Your task to perform on an android device: turn vacation reply on in the gmail app Image 0: 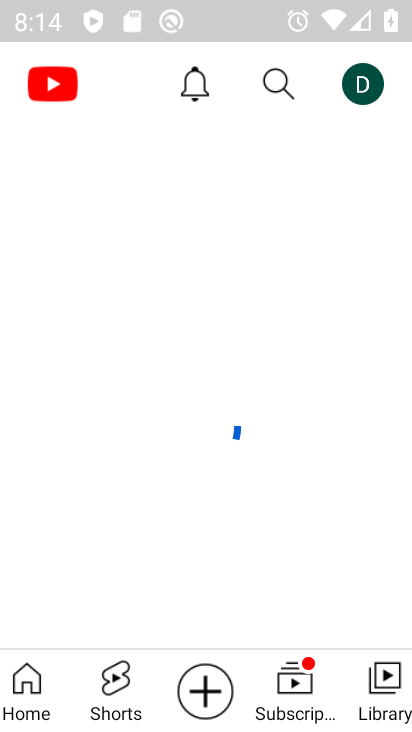
Step 0: click (384, 257)
Your task to perform on an android device: turn vacation reply on in the gmail app Image 1: 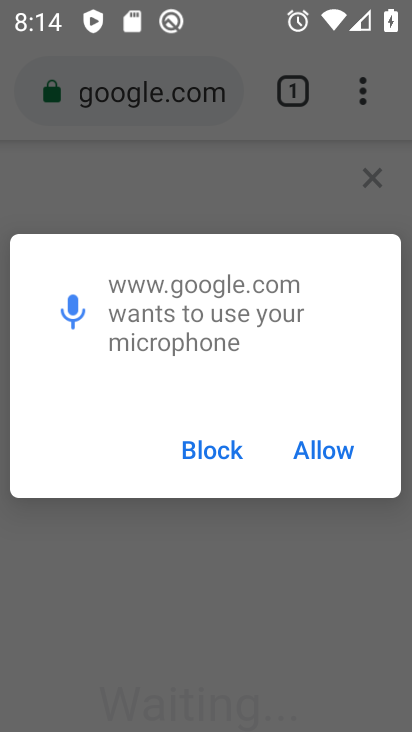
Step 1: press home button
Your task to perform on an android device: turn vacation reply on in the gmail app Image 2: 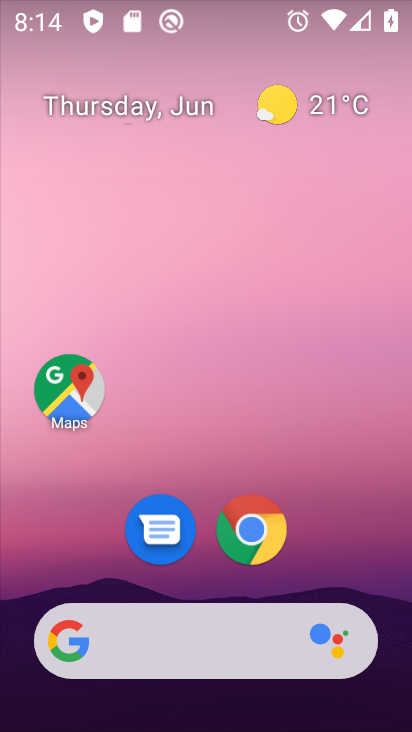
Step 2: drag from (380, 612) to (382, 236)
Your task to perform on an android device: turn vacation reply on in the gmail app Image 3: 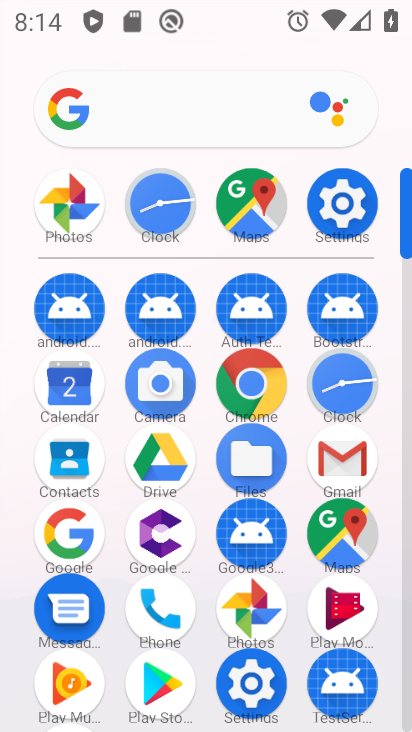
Step 3: click (357, 452)
Your task to perform on an android device: turn vacation reply on in the gmail app Image 4: 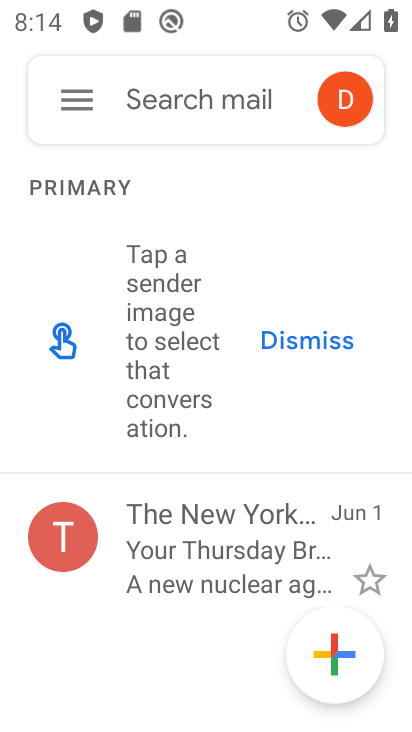
Step 4: click (76, 98)
Your task to perform on an android device: turn vacation reply on in the gmail app Image 5: 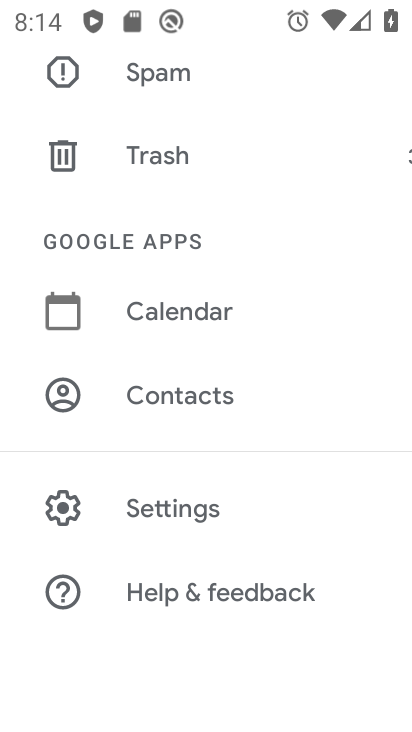
Step 5: click (180, 513)
Your task to perform on an android device: turn vacation reply on in the gmail app Image 6: 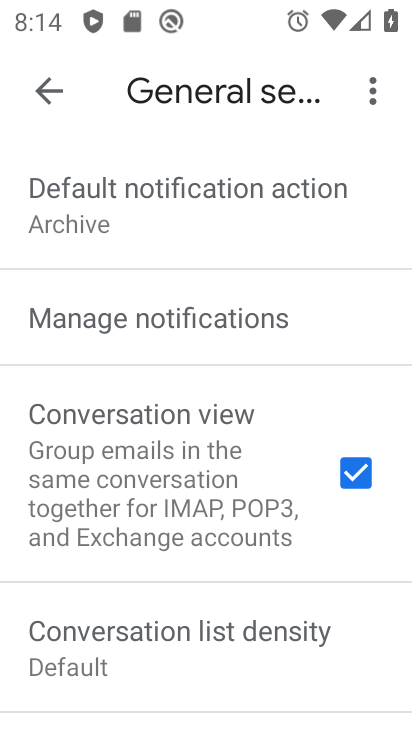
Step 6: click (39, 90)
Your task to perform on an android device: turn vacation reply on in the gmail app Image 7: 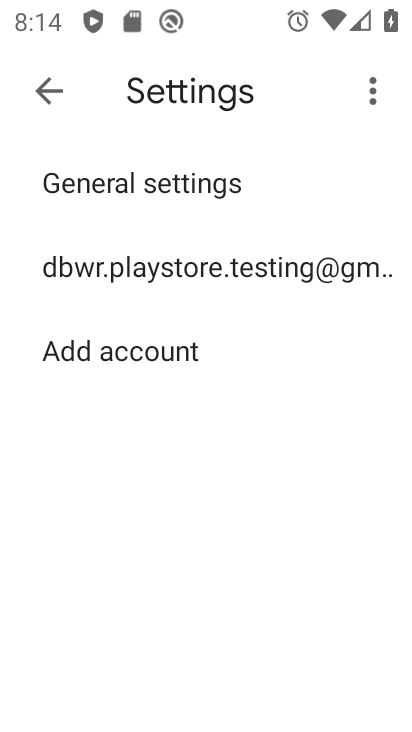
Step 7: click (126, 268)
Your task to perform on an android device: turn vacation reply on in the gmail app Image 8: 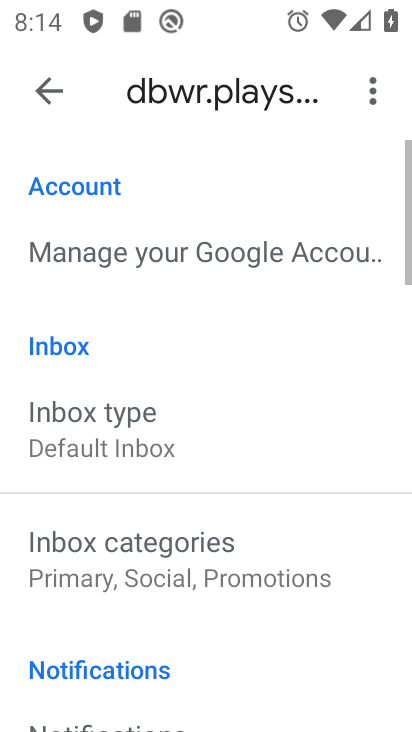
Step 8: drag from (271, 617) to (274, 231)
Your task to perform on an android device: turn vacation reply on in the gmail app Image 9: 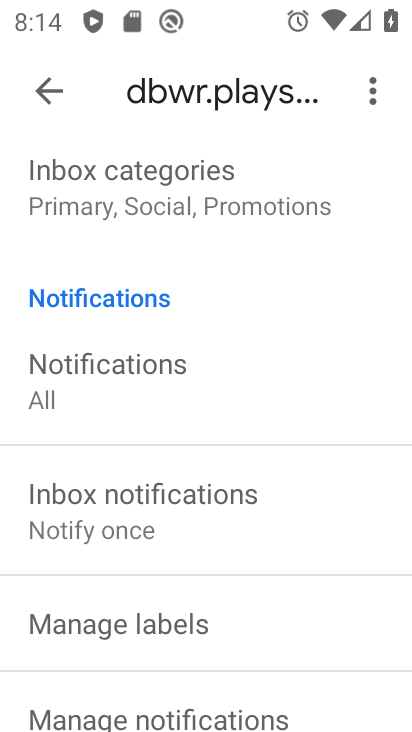
Step 9: drag from (358, 713) to (328, 287)
Your task to perform on an android device: turn vacation reply on in the gmail app Image 10: 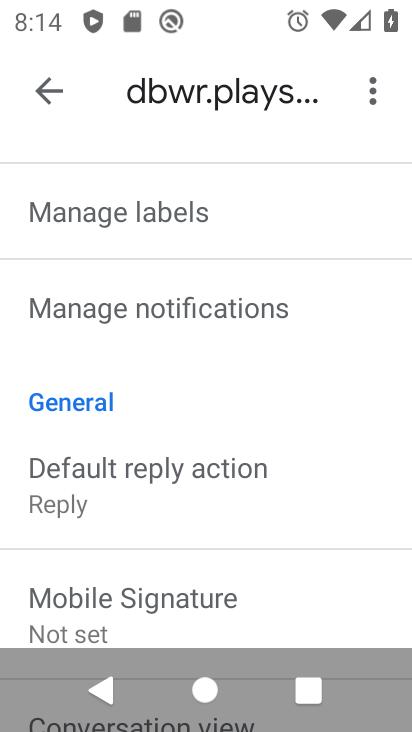
Step 10: drag from (332, 635) to (330, 277)
Your task to perform on an android device: turn vacation reply on in the gmail app Image 11: 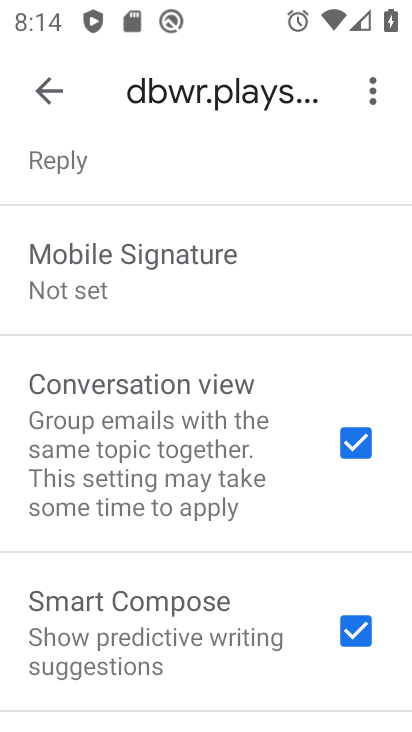
Step 11: drag from (257, 670) to (267, 398)
Your task to perform on an android device: turn vacation reply on in the gmail app Image 12: 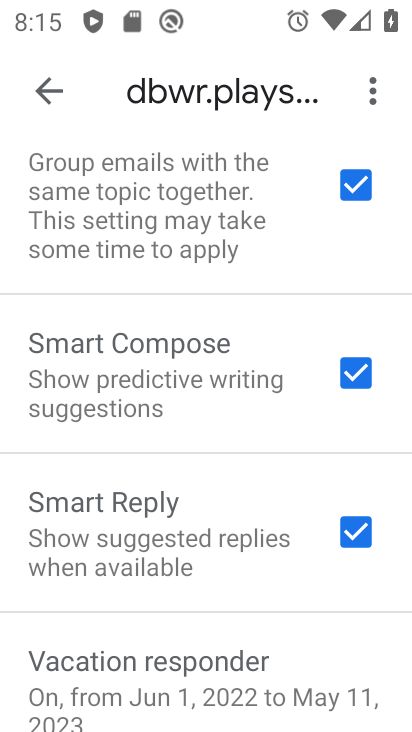
Step 12: click (232, 671)
Your task to perform on an android device: turn vacation reply on in the gmail app Image 13: 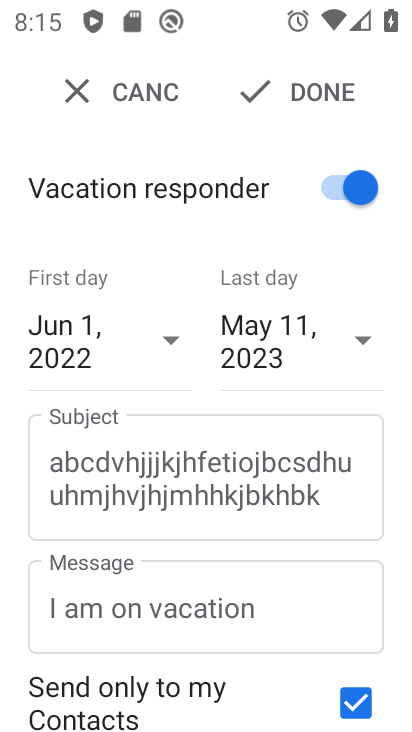
Step 13: task complete